Your task to perform on an android device: Open settings on Google Maps Image 0: 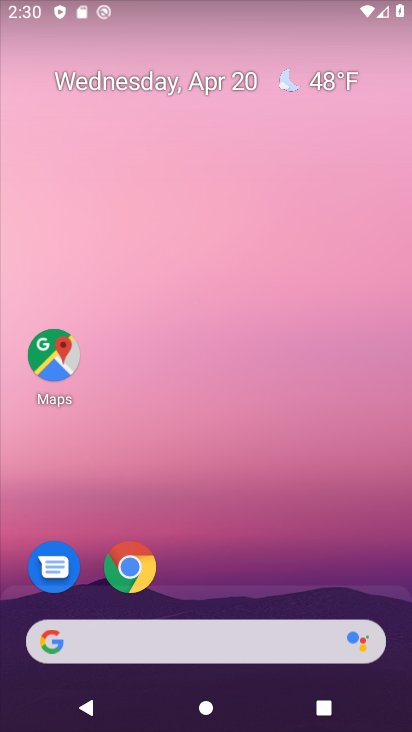
Step 0: click (52, 348)
Your task to perform on an android device: Open settings on Google Maps Image 1: 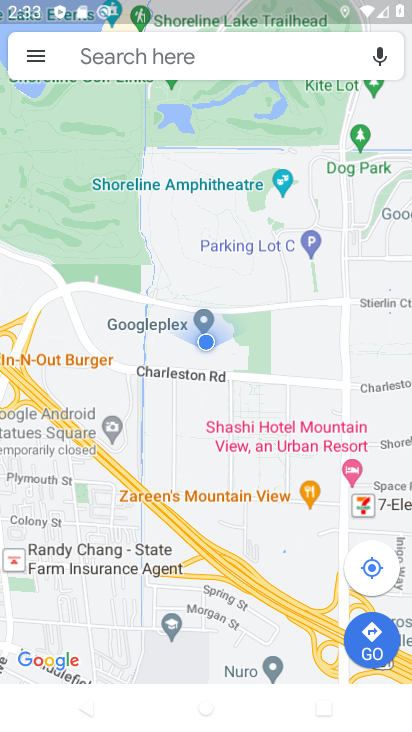
Step 1: task complete